Your task to perform on an android device: turn off wifi Image 0: 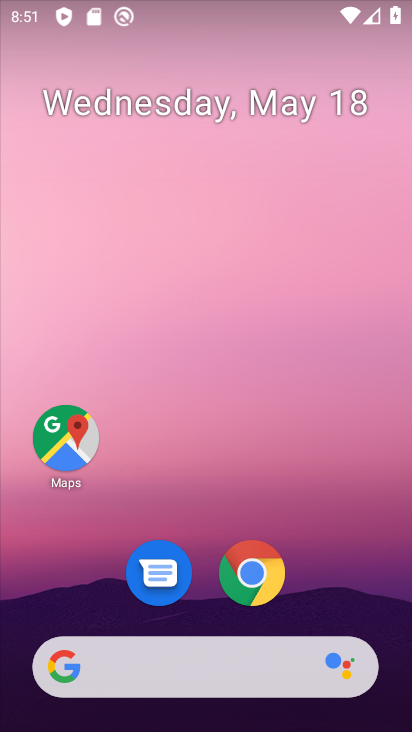
Step 0: drag from (285, 725) to (267, 248)
Your task to perform on an android device: turn off wifi Image 1: 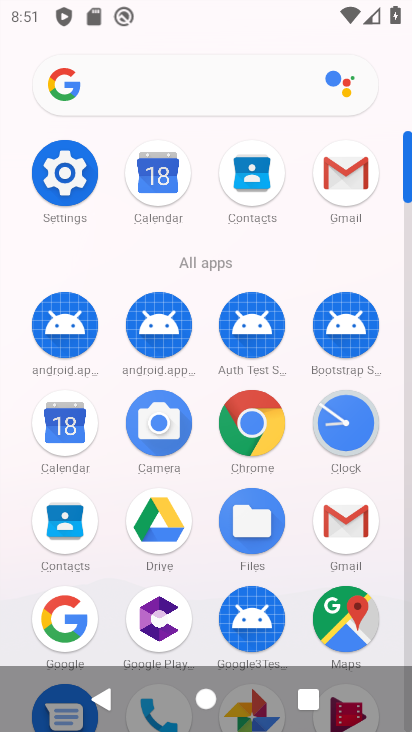
Step 1: click (58, 175)
Your task to perform on an android device: turn off wifi Image 2: 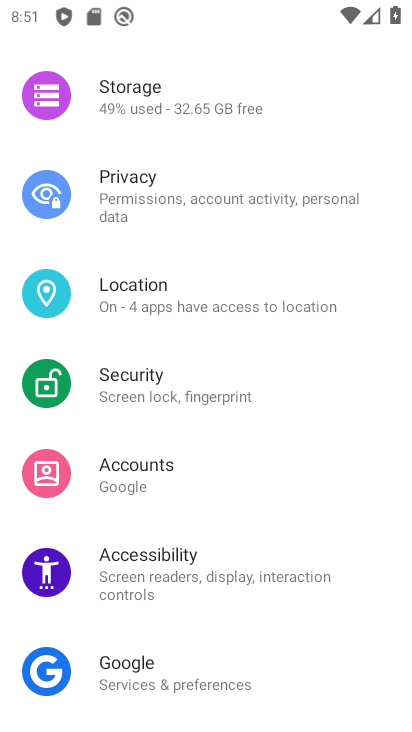
Step 2: drag from (311, 111) to (61, 725)
Your task to perform on an android device: turn off wifi Image 3: 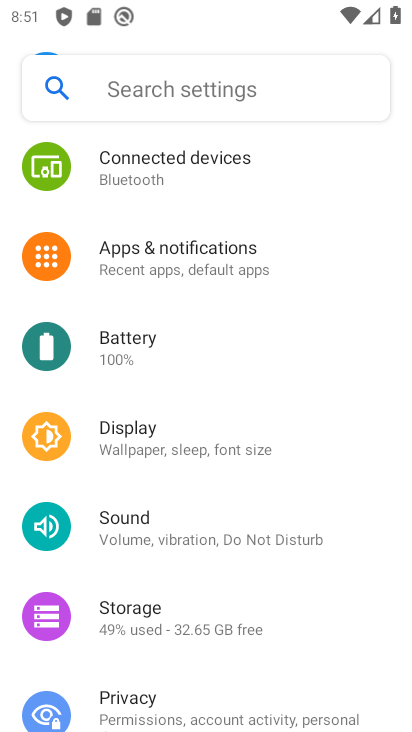
Step 3: drag from (283, 458) to (245, 679)
Your task to perform on an android device: turn off wifi Image 4: 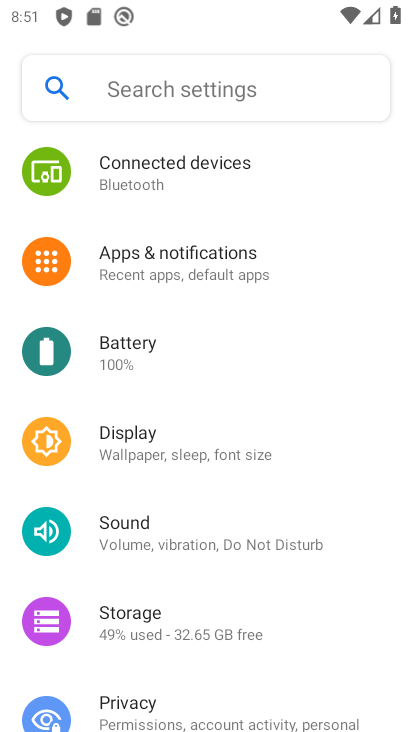
Step 4: drag from (335, 223) to (246, 722)
Your task to perform on an android device: turn off wifi Image 5: 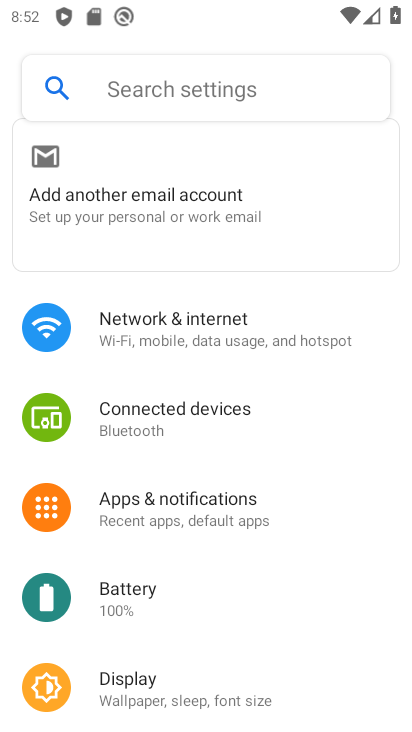
Step 5: drag from (341, 194) to (278, 703)
Your task to perform on an android device: turn off wifi Image 6: 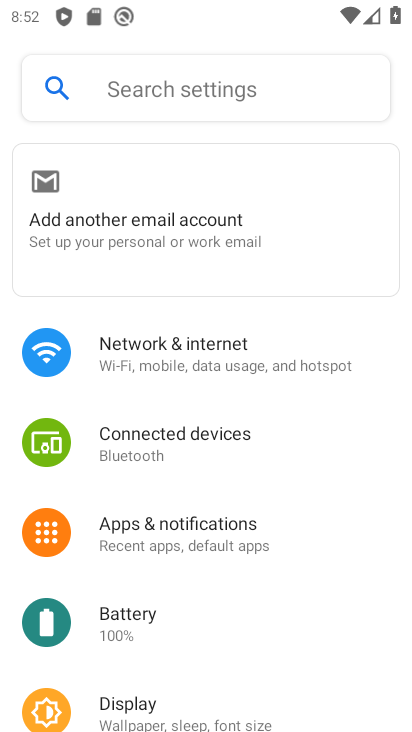
Step 6: click (260, 370)
Your task to perform on an android device: turn off wifi Image 7: 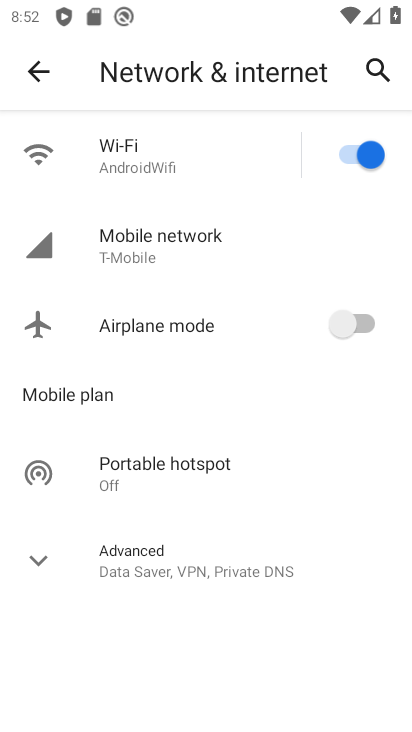
Step 7: click (379, 153)
Your task to perform on an android device: turn off wifi Image 8: 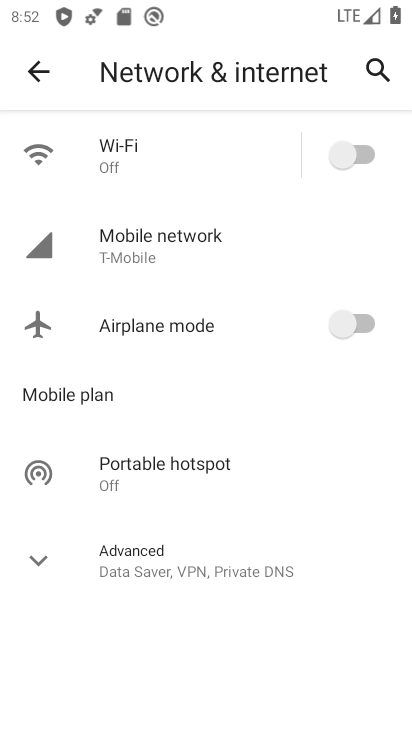
Step 8: task complete